Your task to perform on an android device: Show me productivity apps on the Play Store Image 0: 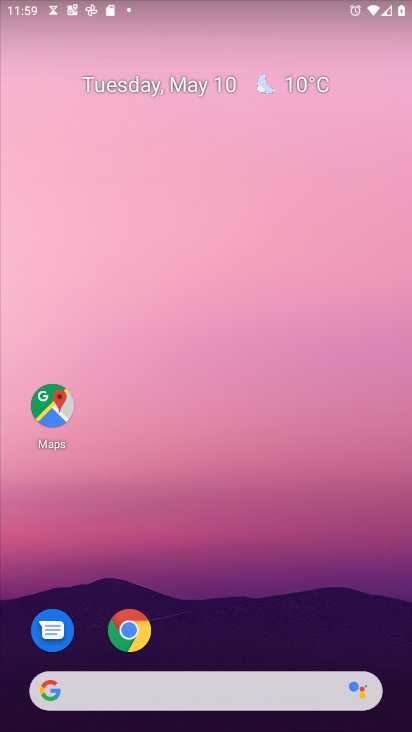
Step 0: drag from (258, 564) to (258, 80)
Your task to perform on an android device: Show me productivity apps on the Play Store Image 1: 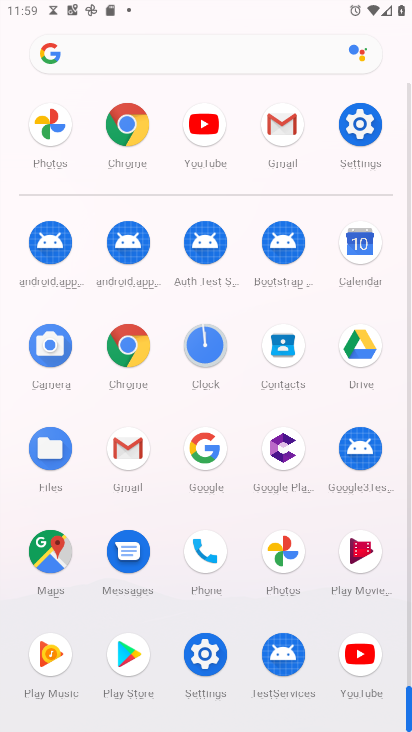
Step 1: click (121, 653)
Your task to perform on an android device: Show me productivity apps on the Play Store Image 2: 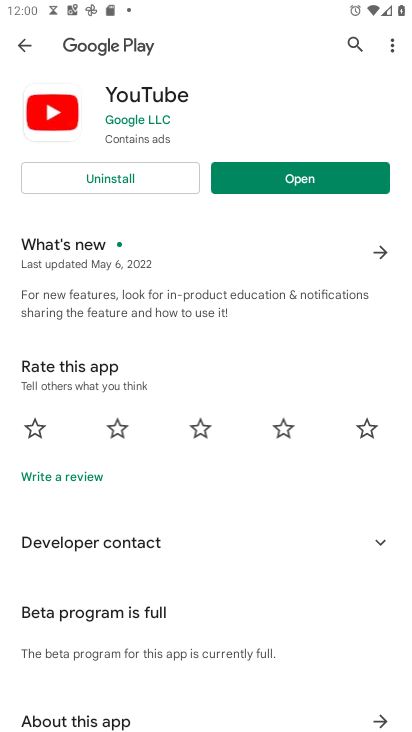
Step 2: click (20, 39)
Your task to perform on an android device: Show me productivity apps on the Play Store Image 3: 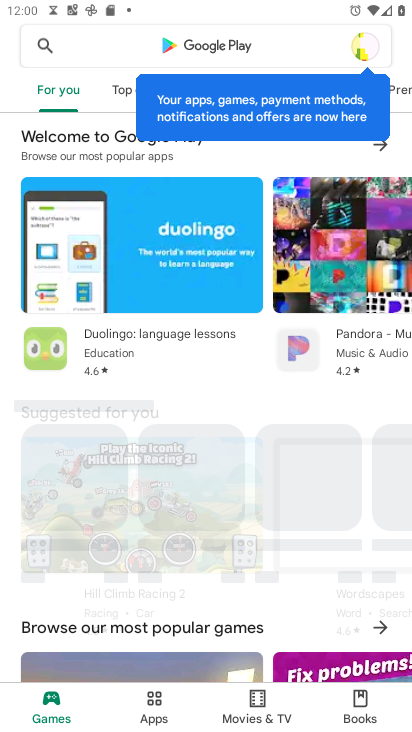
Step 3: click (155, 45)
Your task to perform on an android device: Show me productivity apps on the Play Store Image 4: 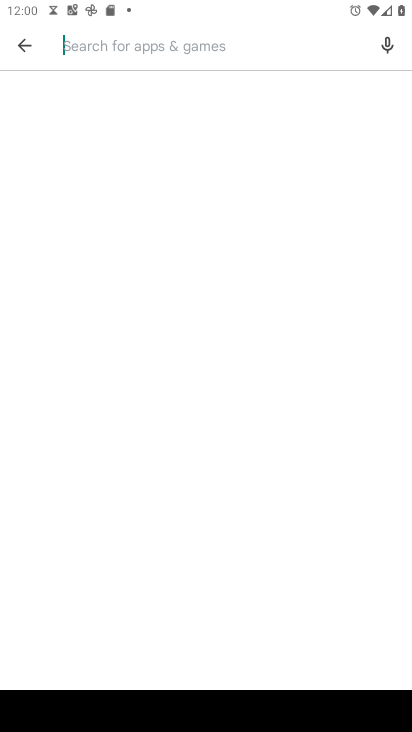
Step 4: type "productivity apps"
Your task to perform on an android device: Show me productivity apps on the Play Store Image 5: 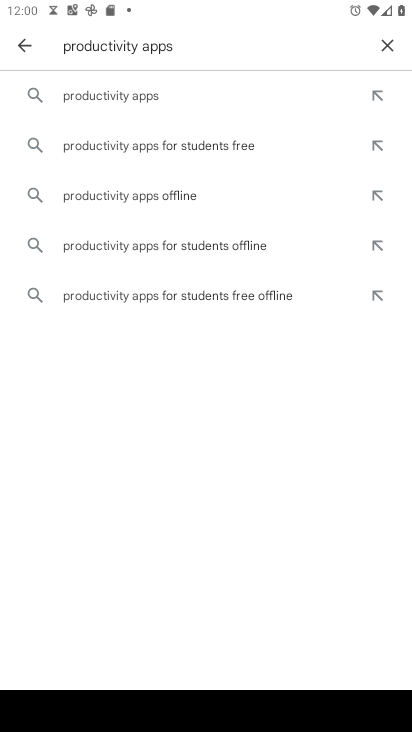
Step 5: click (168, 99)
Your task to perform on an android device: Show me productivity apps on the Play Store Image 6: 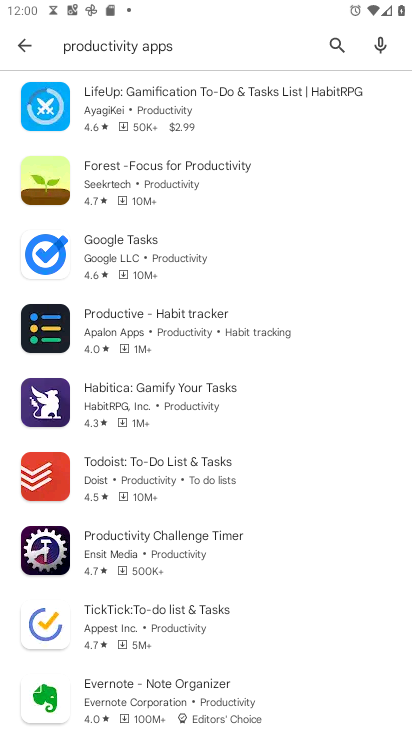
Step 6: task complete